Your task to perform on an android device: Search for a new grill on Home Depot Image 0: 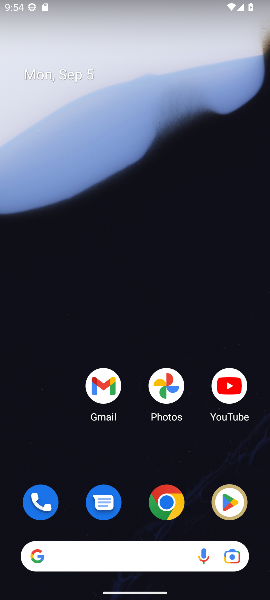
Step 0: click (145, 1)
Your task to perform on an android device: Search for a new grill on Home Depot Image 1: 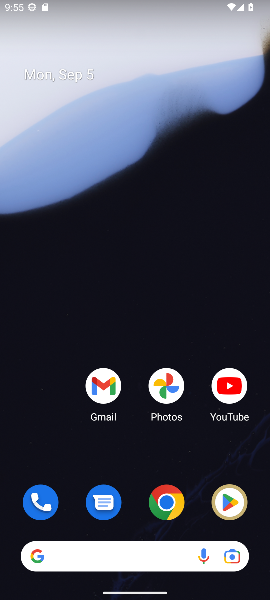
Step 1: drag from (266, 503) to (156, 15)
Your task to perform on an android device: Search for a new grill on Home Depot Image 2: 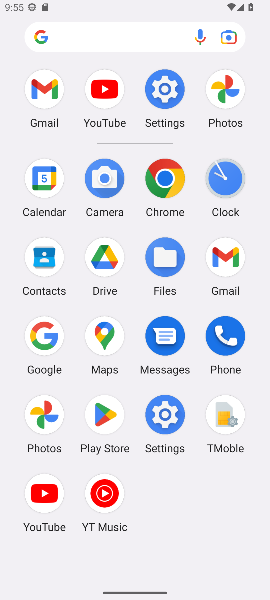
Step 2: click (38, 346)
Your task to perform on an android device: Search for a new grill on Home Depot Image 3: 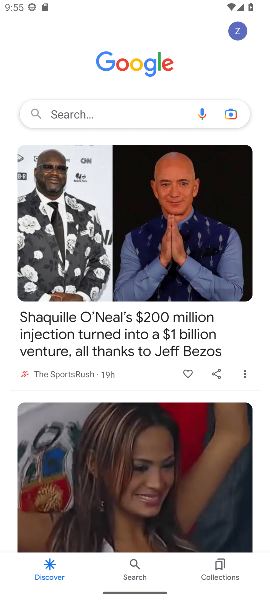
Step 3: click (97, 115)
Your task to perform on an android device: Search for a new grill on Home Depot Image 4: 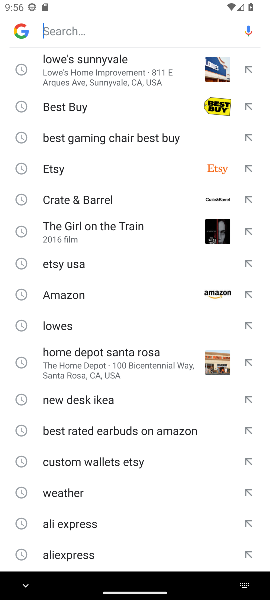
Step 4: click (71, 29)
Your task to perform on an android device: Search for a new grill on Home Depot Image 5: 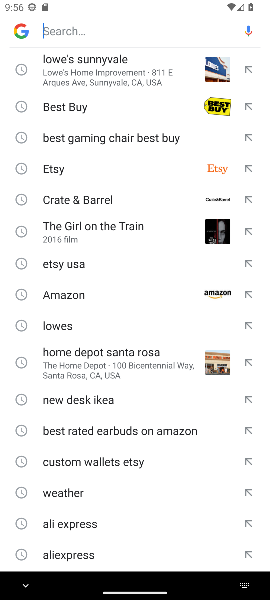
Step 5: type "new grill on Home Depot"
Your task to perform on an android device: Search for a new grill on Home Depot Image 6: 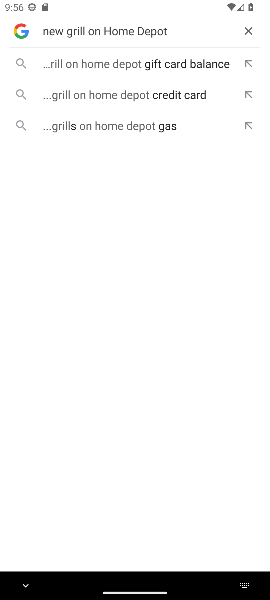
Step 6: click (66, 118)
Your task to perform on an android device: Search for a new grill on Home Depot Image 7: 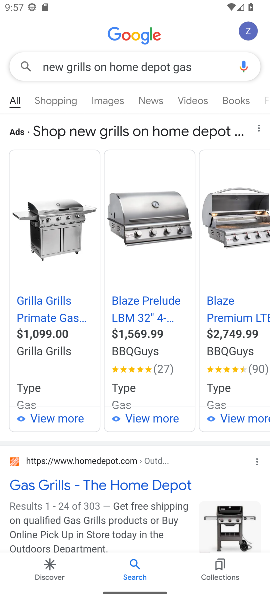
Step 7: task complete